Your task to perform on an android device: Open the calendar app, open the side menu, and click the "Day" option Image 0: 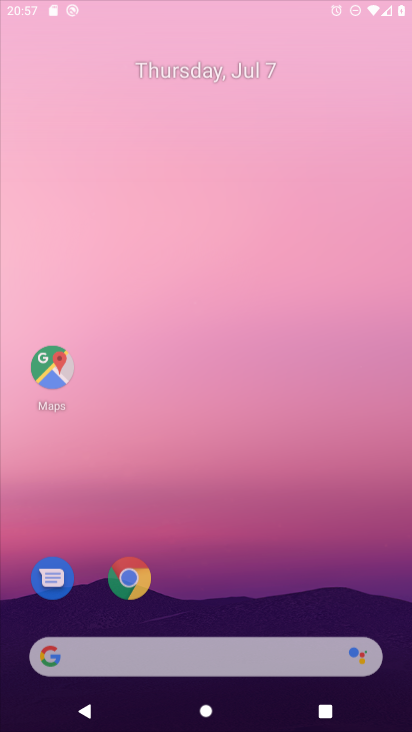
Step 0: click (220, 205)
Your task to perform on an android device: Open the calendar app, open the side menu, and click the "Day" option Image 1: 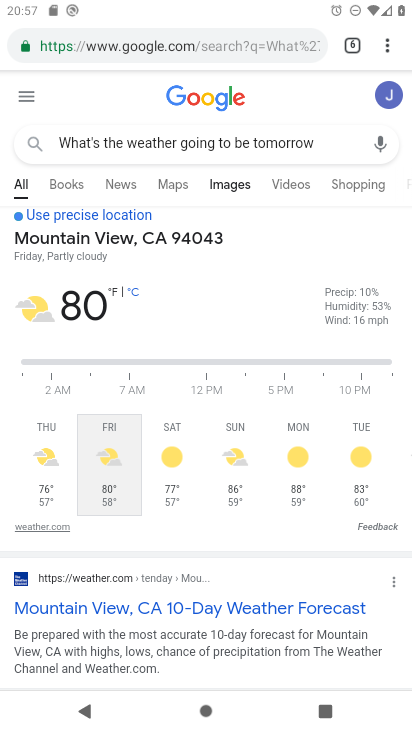
Step 1: drag from (215, 641) to (211, 323)
Your task to perform on an android device: Open the calendar app, open the side menu, and click the "Day" option Image 2: 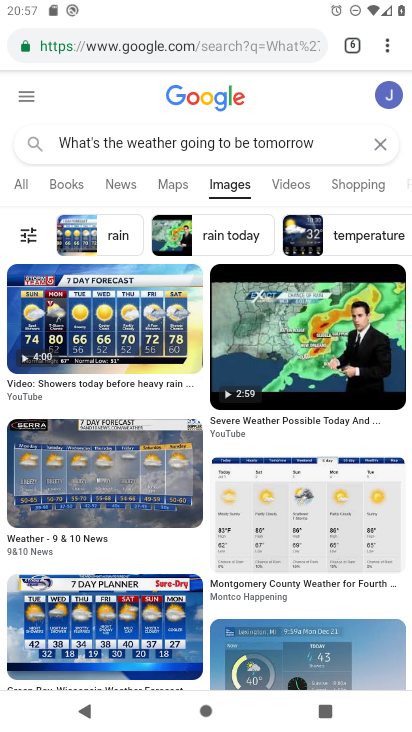
Step 2: press home button
Your task to perform on an android device: Open the calendar app, open the side menu, and click the "Day" option Image 3: 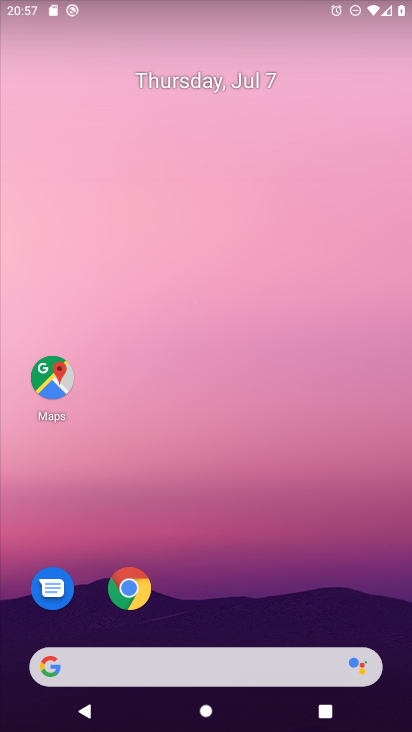
Step 3: drag from (263, 583) to (181, 191)
Your task to perform on an android device: Open the calendar app, open the side menu, and click the "Day" option Image 4: 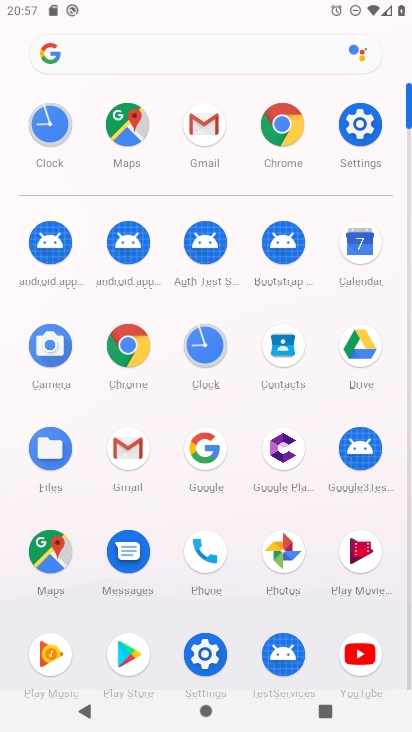
Step 4: click (367, 242)
Your task to perform on an android device: Open the calendar app, open the side menu, and click the "Day" option Image 5: 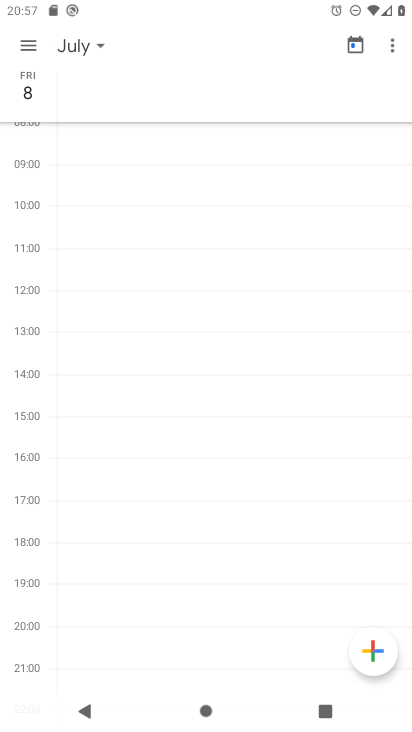
Step 5: click (30, 35)
Your task to perform on an android device: Open the calendar app, open the side menu, and click the "Day" option Image 6: 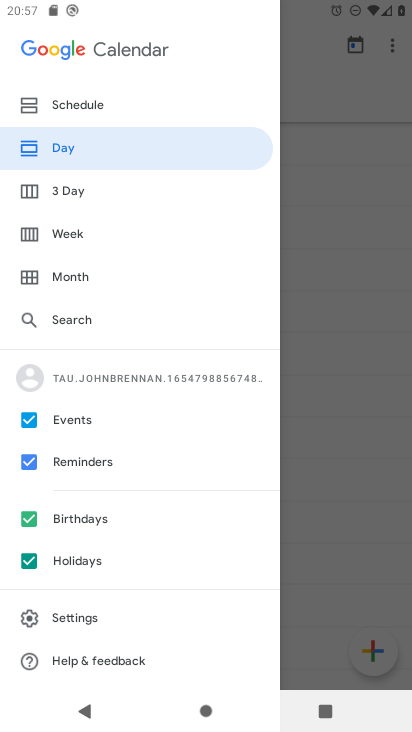
Step 6: click (106, 147)
Your task to perform on an android device: Open the calendar app, open the side menu, and click the "Day" option Image 7: 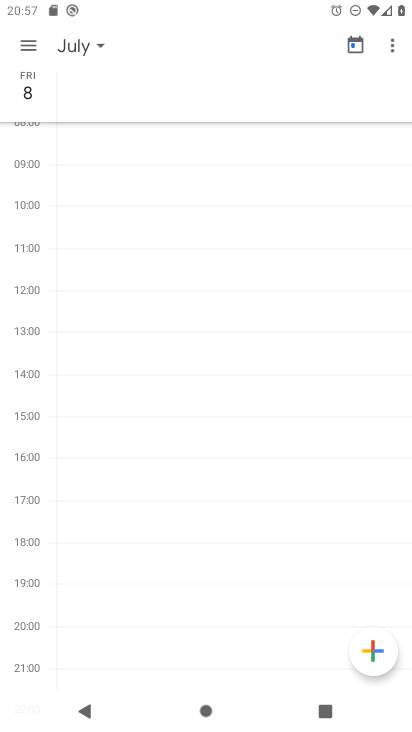
Step 7: task complete